Your task to perform on an android device: add a contact Image 0: 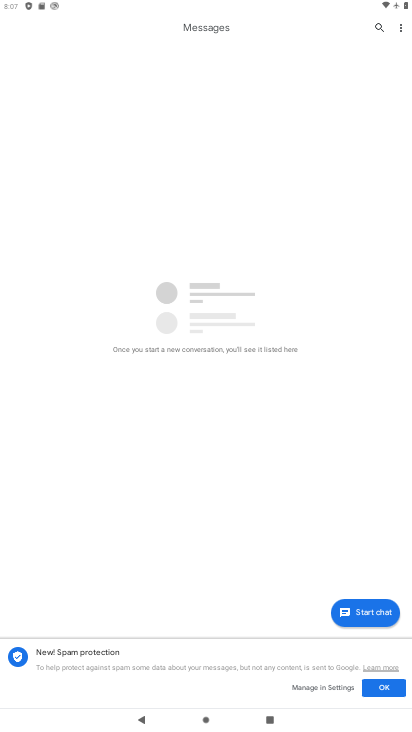
Step 0: press home button
Your task to perform on an android device: add a contact Image 1: 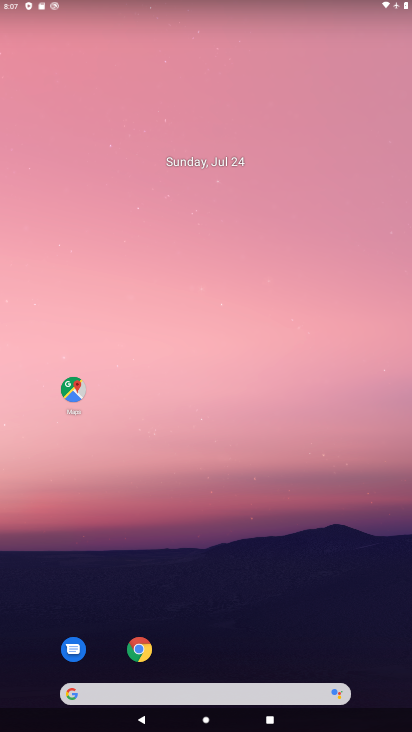
Step 1: drag from (173, 676) to (246, 114)
Your task to perform on an android device: add a contact Image 2: 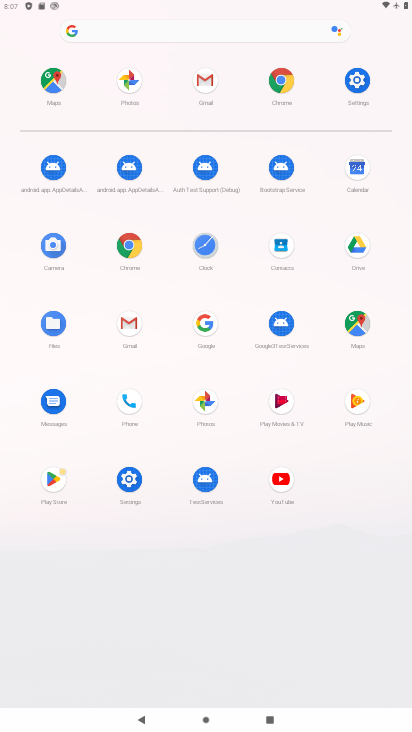
Step 2: click (130, 390)
Your task to perform on an android device: add a contact Image 3: 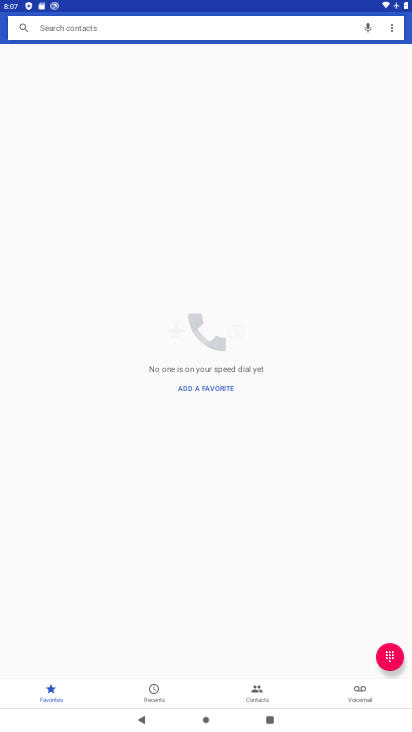
Step 3: click (251, 693)
Your task to perform on an android device: add a contact Image 4: 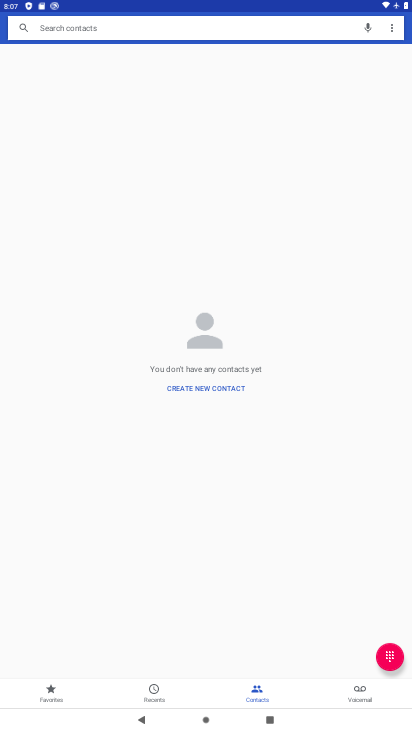
Step 4: click (211, 386)
Your task to perform on an android device: add a contact Image 5: 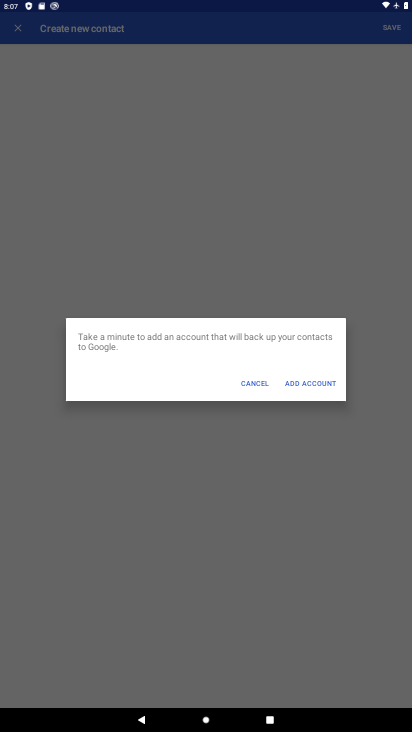
Step 5: click (338, 382)
Your task to perform on an android device: add a contact Image 6: 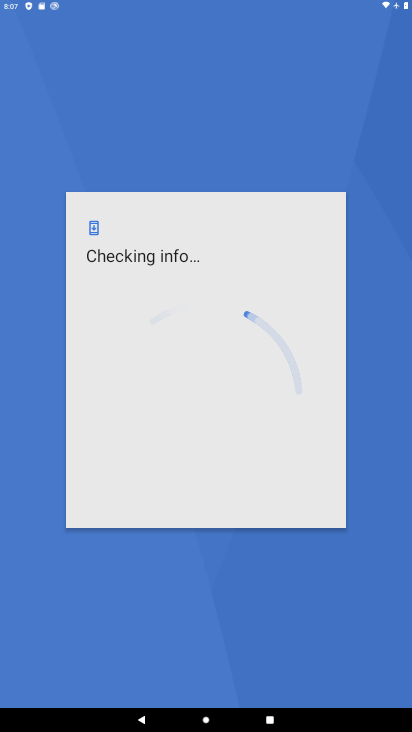
Step 6: task complete